Your task to perform on an android device: Go to location settings Image 0: 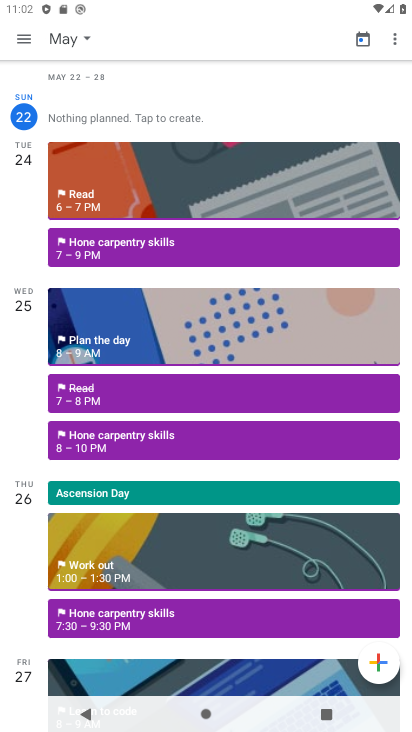
Step 0: press home button
Your task to perform on an android device: Go to location settings Image 1: 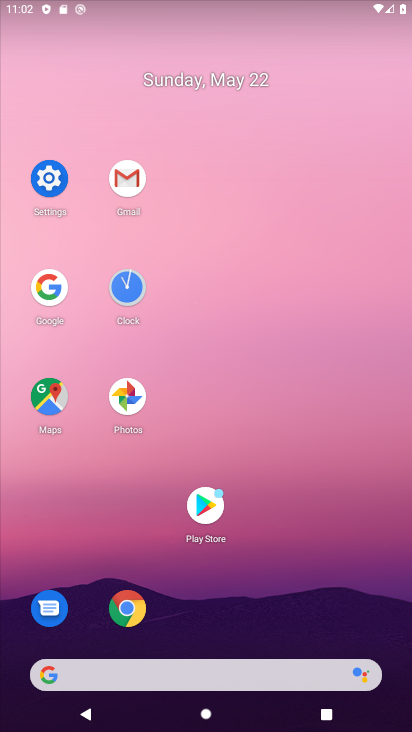
Step 1: click (41, 178)
Your task to perform on an android device: Go to location settings Image 2: 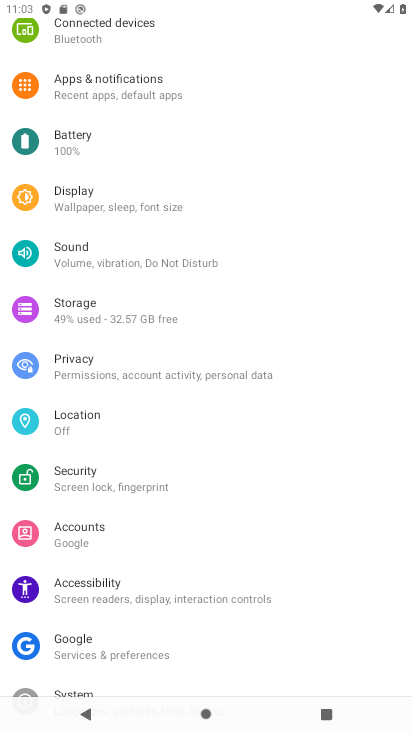
Step 2: click (150, 422)
Your task to perform on an android device: Go to location settings Image 3: 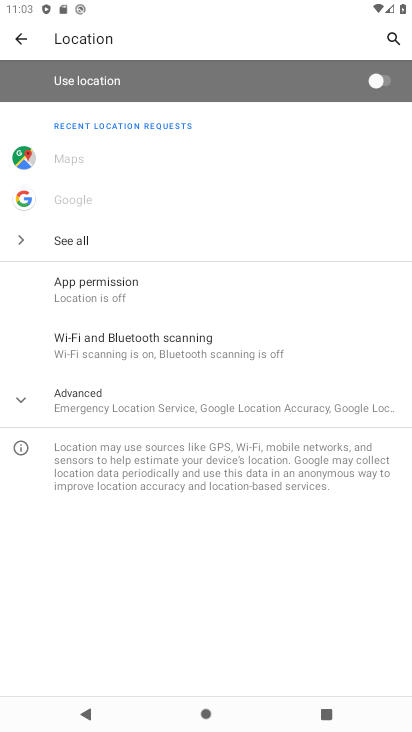
Step 3: task complete